Your task to perform on an android device: Check the news Image 0: 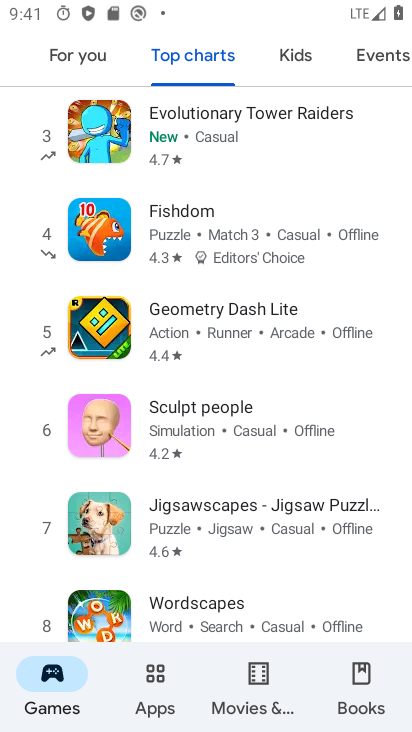
Step 0: press home button
Your task to perform on an android device: Check the news Image 1: 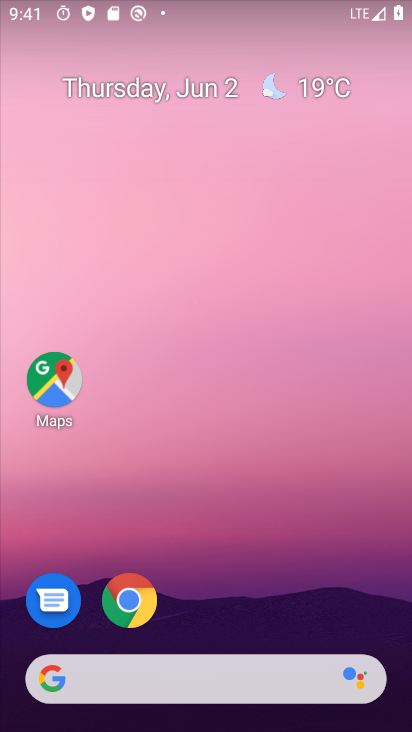
Step 1: drag from (216, 628) to (223, 232)
Your task to perform on an android device: Check the news Image 2: 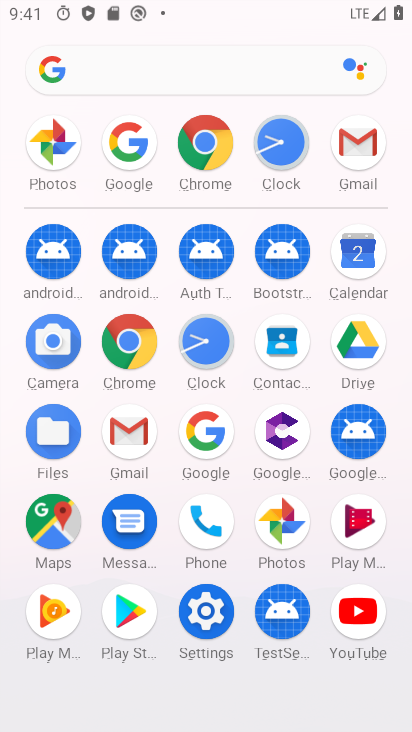
Step 2: click (130, 149)
Your task to perform on an android device: Check the news Image 3: 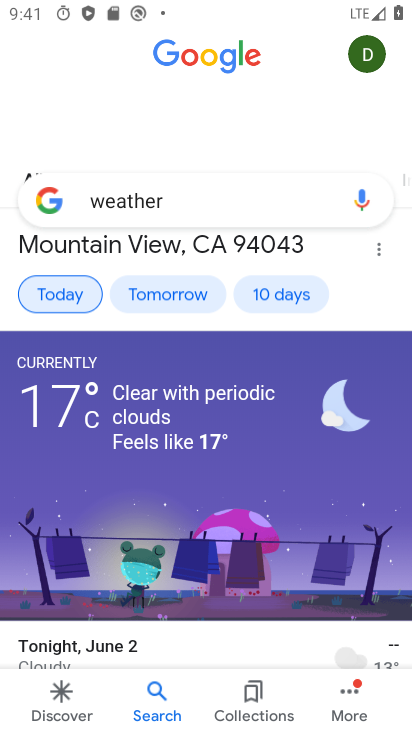
Step 3: click (189, 190)
Your task to perform on an android device: Check the news Image 4: 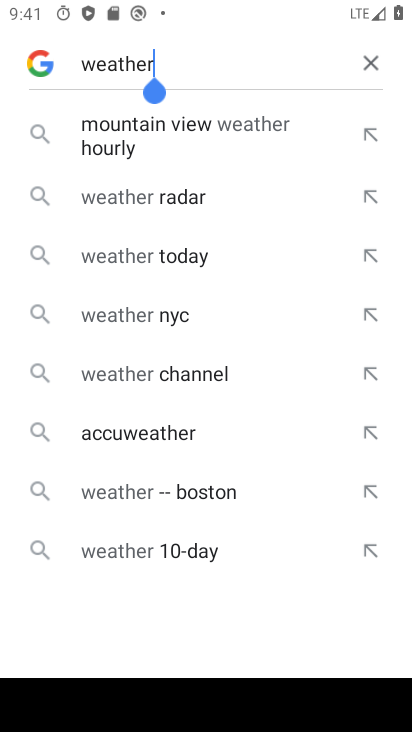
Step 4: click (370, 66)
Your task to perform on an android device: Check the news Image 5: 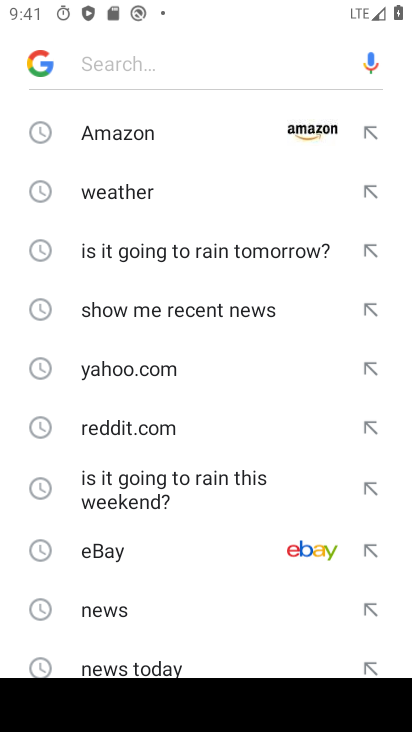
Step 5: click (143, 608)
Your task to perform on an android device: Check the news Image 6: 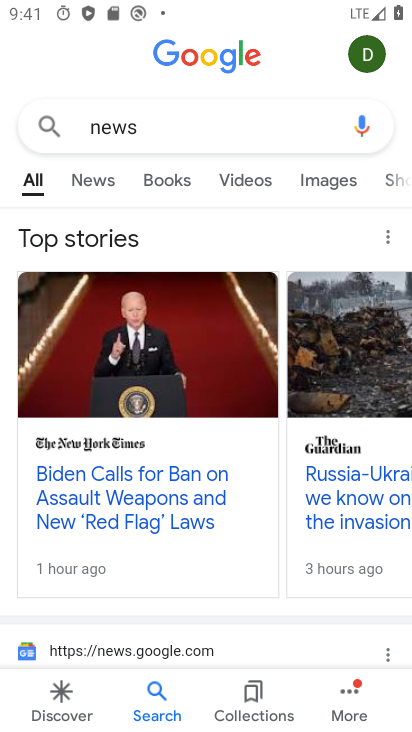
Step 6: click (108, 185)
Your task to perform on an android device: Check the news Image 7: 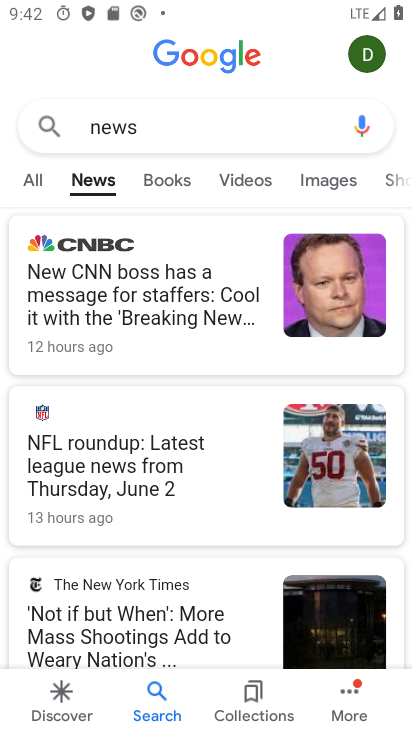
Step 7: task complete